Your task to perform on an android device: Go to Amazon Image 0: 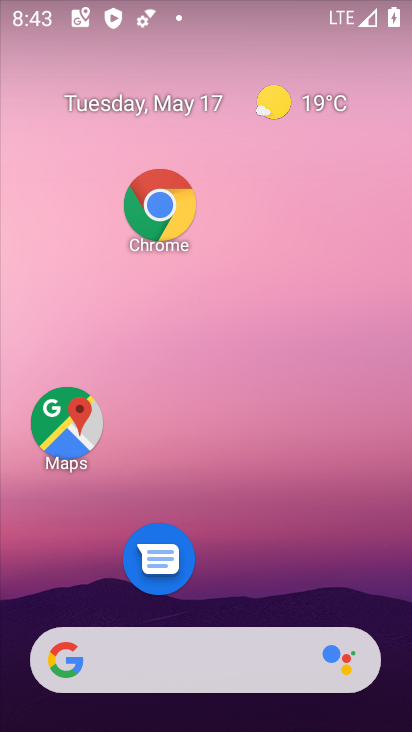
Step 0: click (159, 203)
Your task to perform on an android device: Go to Amazon Image 1: 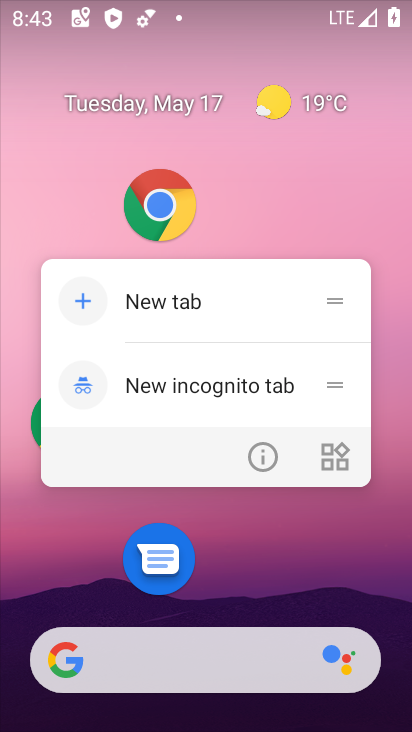
Step 1: click (249, 463)
Your task to perform on an android device: Go to Amazon Image 2: 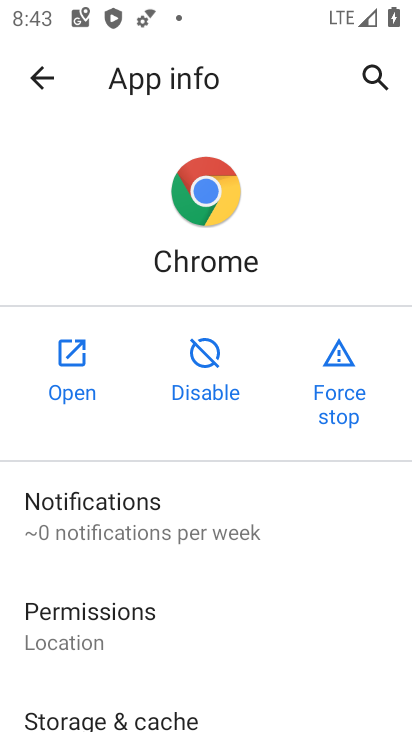
Step 2: click (82, 378)
Your task to perform on an android device: Go to Amazon Image 3: 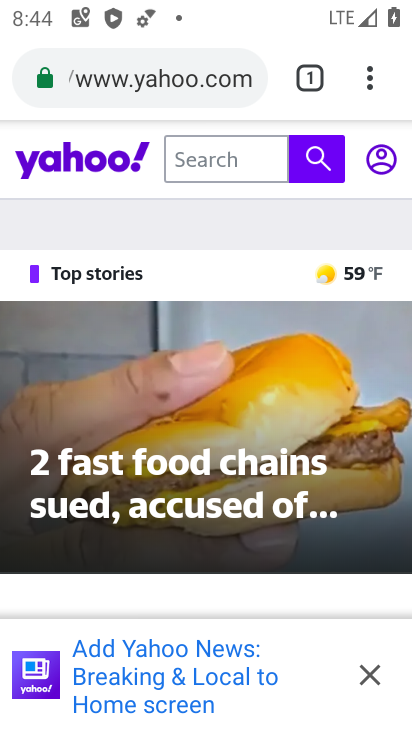
Step 3: click (312, 93)
Your task to perform on an android device: Go to Amazon Image 4: 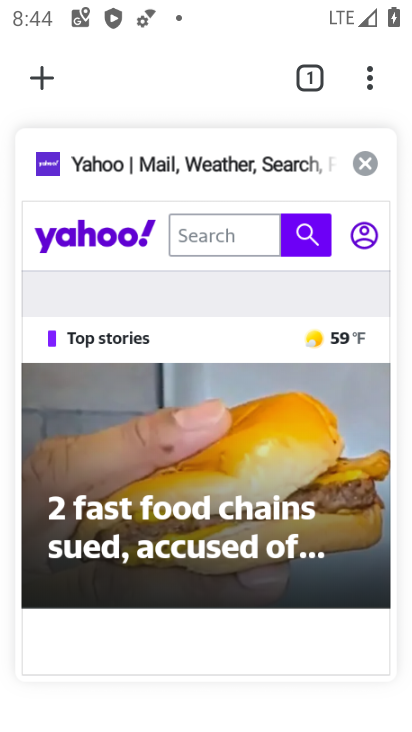
Step 4: click (33, 75)
Your task to perform on an android device: Go to Amazon Image 5: 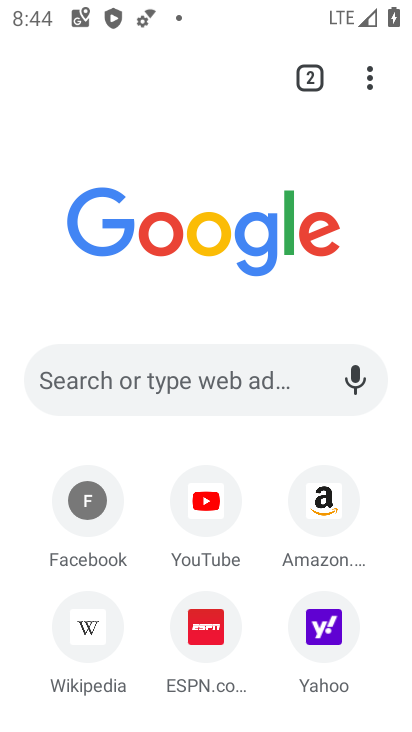
Step 5: click (326, 502)
Your task to perform on an android device: Go to Amazon Image 6: 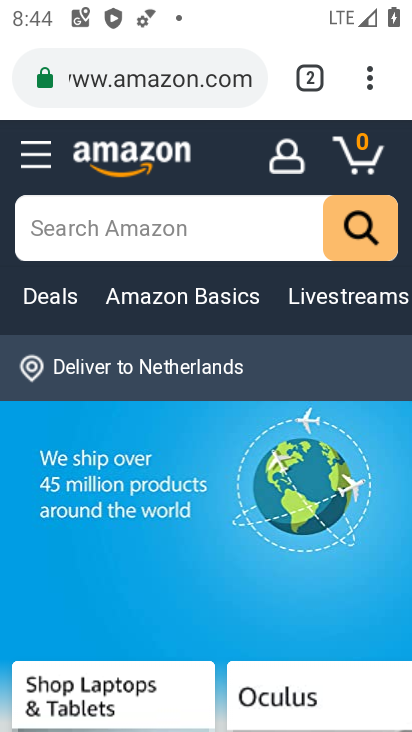
Step 6: task complete